Your task to perform on an android device: Open calendar and show me the fourth week of next month Image 0: 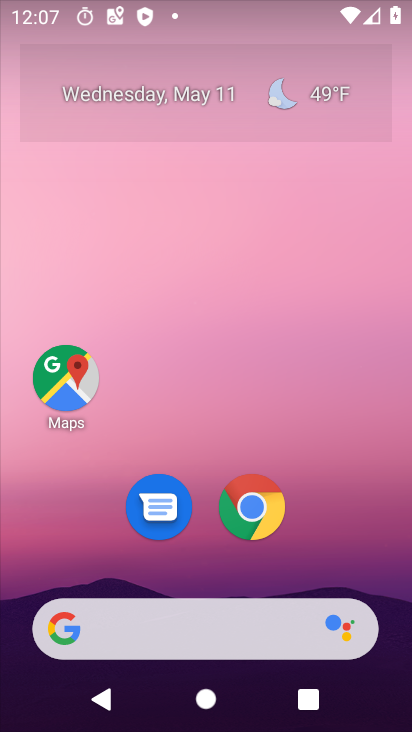
Step 0: drag from (206, 562) to (239, 64)
Your task to perform on an android device: Open calendar and show me the fourth week of next month Image 1: 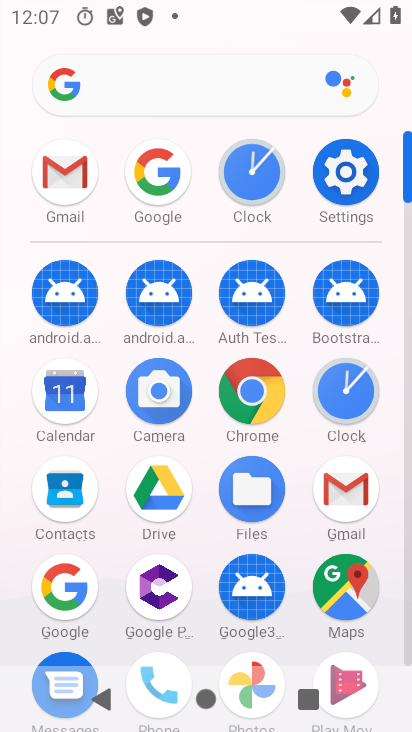
Step 1: click (71, 394)
Your task to perform on an android device: Open calendar and show me the fourth week of next month Image 2: 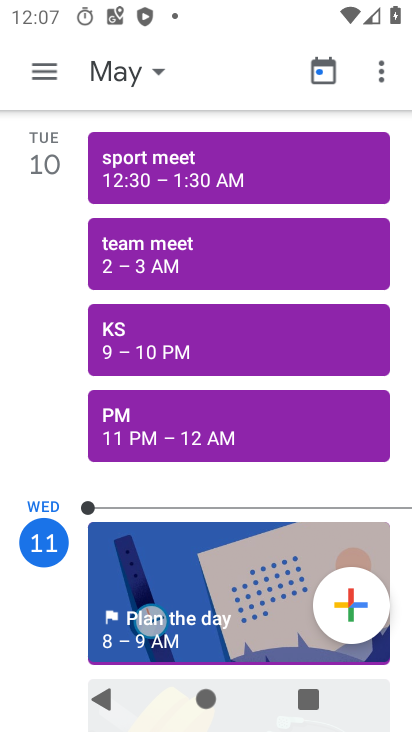
Step 2: click (150, 74)
Your task to perform on an android device: Open calendar and show me the fourth week of next month Image 3: 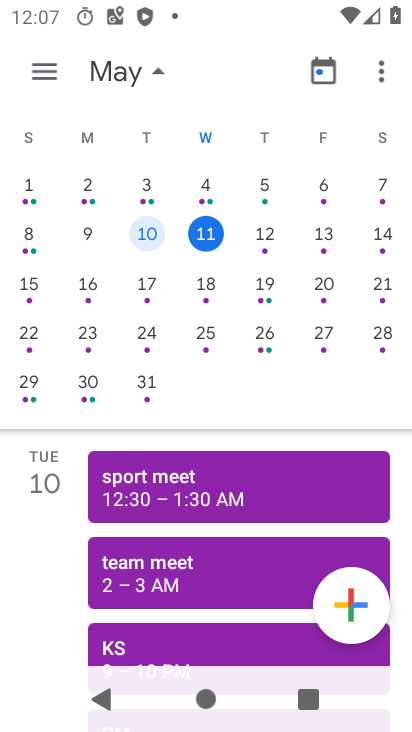
Step 3: drag from (385, 395) to (25, 306)
Your task to perform on an android device: Open calendar and show me the fourth week of next month Image 4: 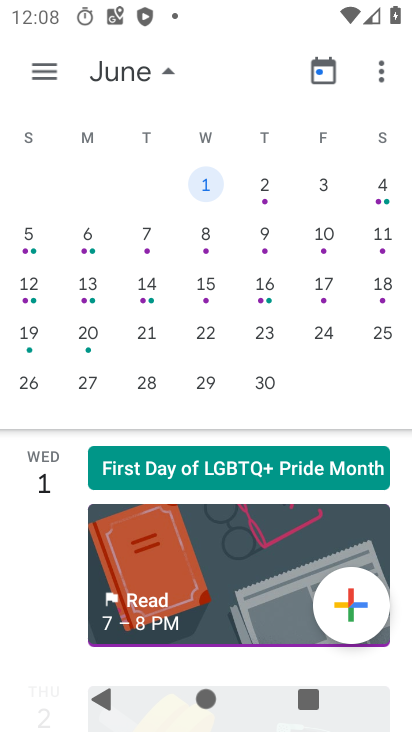
Step 4: click (200, 346)
Your task to perform on an android device: Open calendar and show me the fourth week of next month Image 5: 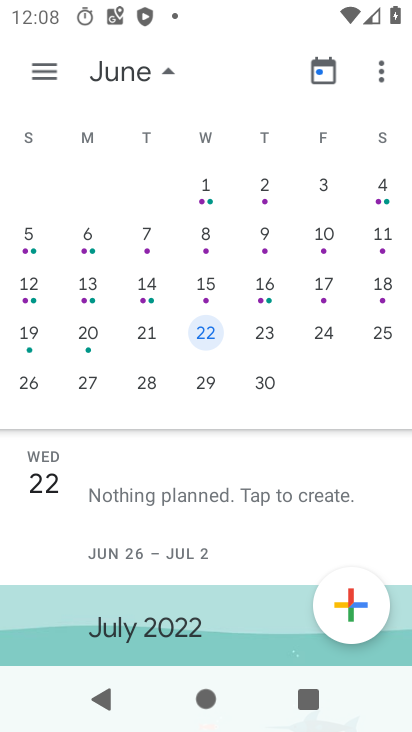
Step 5: task complete